Your task to perform on an android device: Open sound settings Image 0: 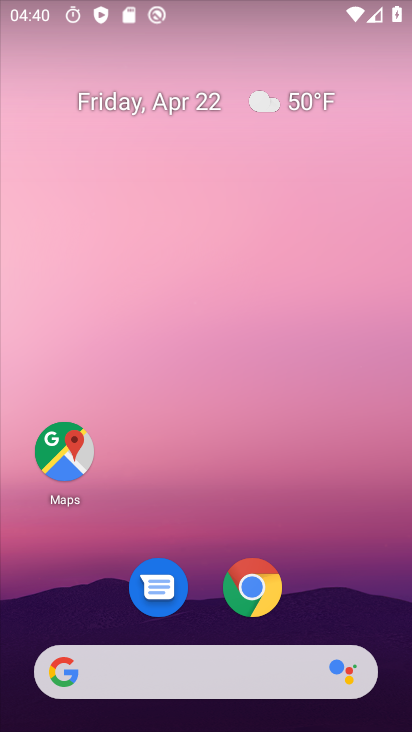
Step 0: drag from (347, 563) to (360, 26)
Your task to perform on an android device: Open sound settings Image 1: 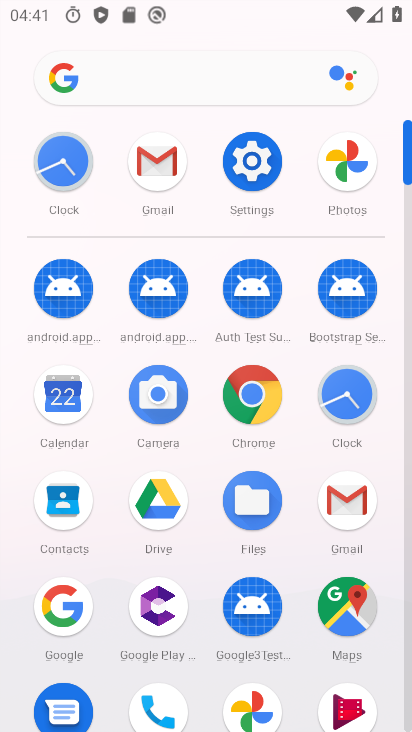
Step 1: click (259, 172)
Your task to perform on an android device: Open sound settings Image 2: 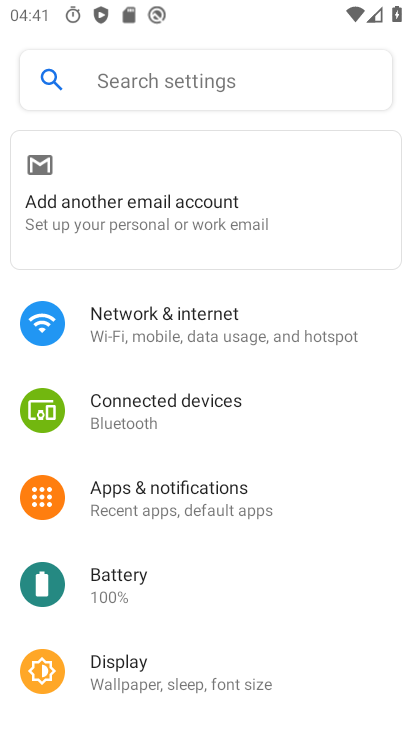
Step 2: drag from (347, 628) to (327, 335)
Your task to perform on an android device: Open sound settings Image 3: 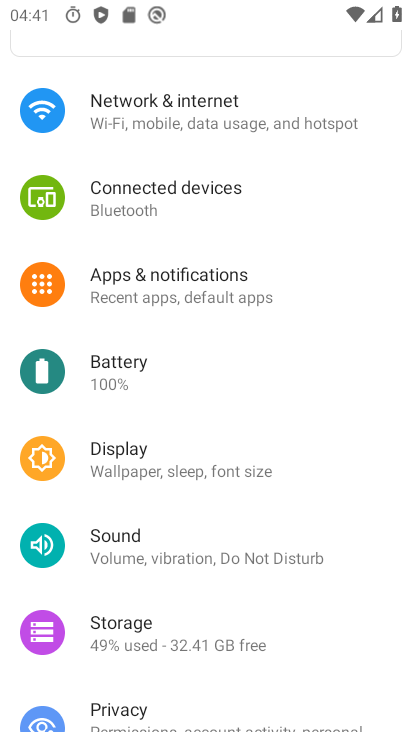
Step 3: click (88, 553)
Your task to perform on an android device: Open sound settings Image 4: 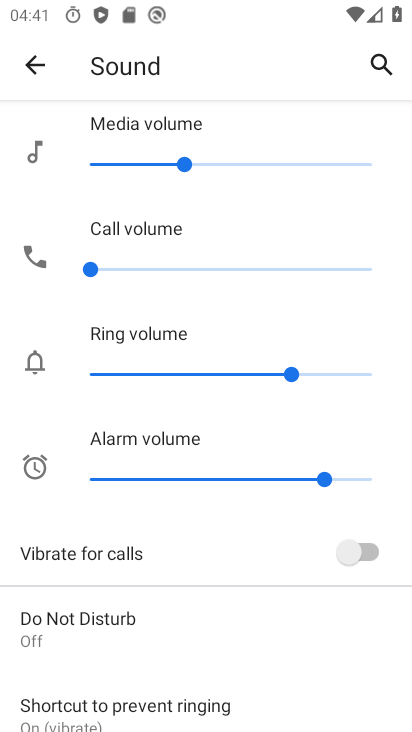
Step 4: task complete